Your task to perform on an android device: change the clock display to analog Image 0: 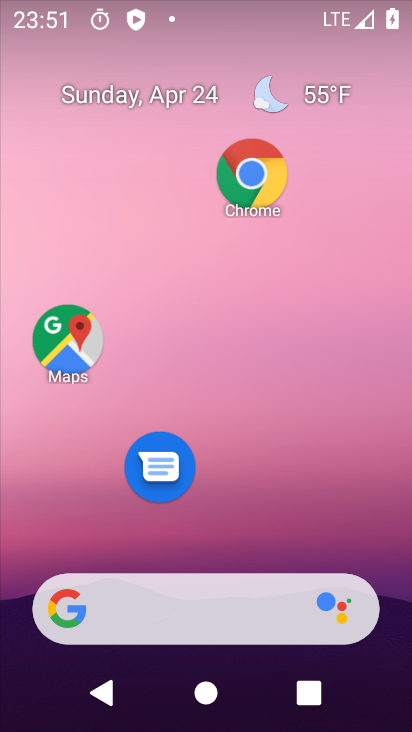
Step 0: drag from (231, 493) to (202, 20)
Your task to perform on an android device: change the clock display to analog Image 1: 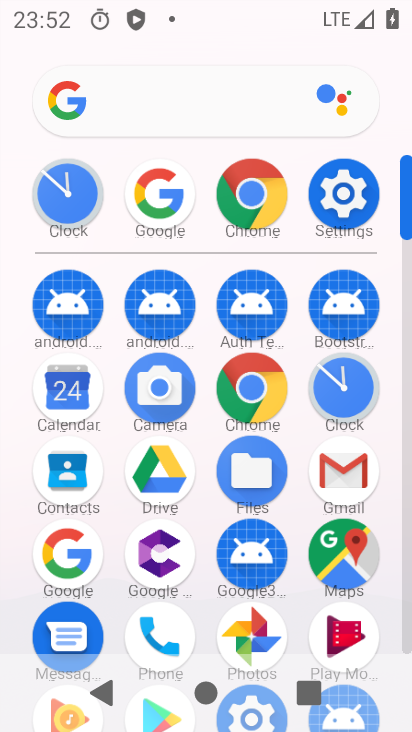
Step 1: click (341, 399)
Your task to perform on an android device: change the clock display to analog Image 2: 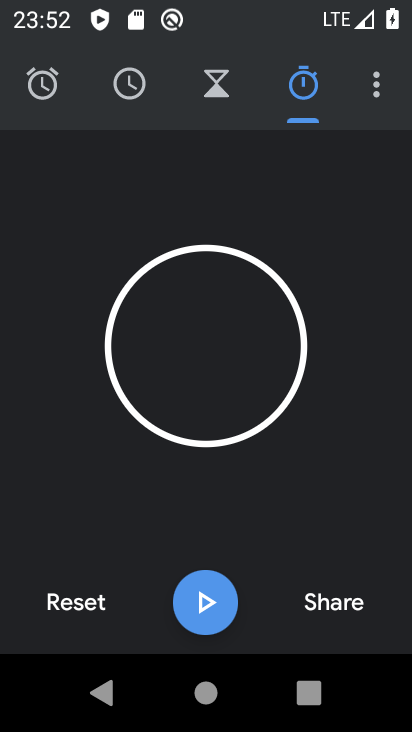
Step 2: click (369, 82)
Your task to perform on an android device: change the clock display to analog Image 3: 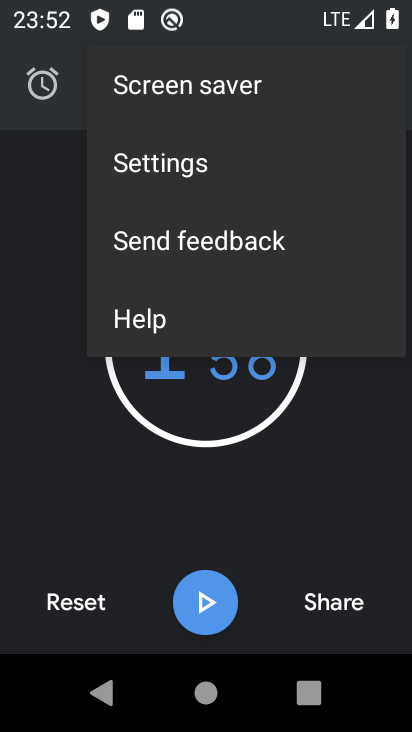
Step 3: click (221, 164)
Your task to perform on an android device: change the clock display to analog Image 4: 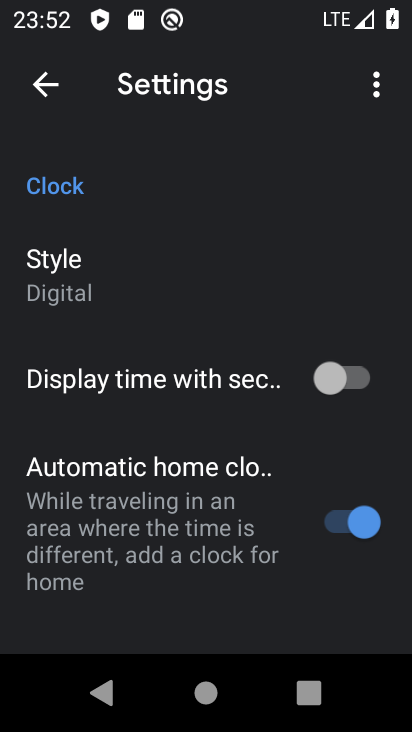
Step 4: click (115, 274)
Your task to perform on an android device: change the clock display to analog Image 5: 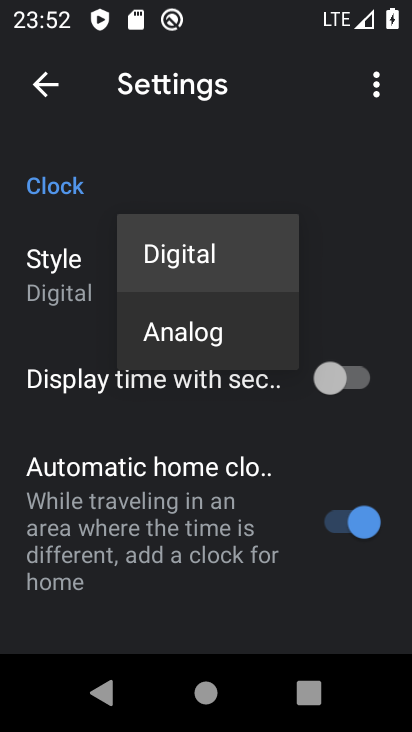
Step 5: click (170, 336)
Your task to perform on an android device: change the clock display to analog Image 6: 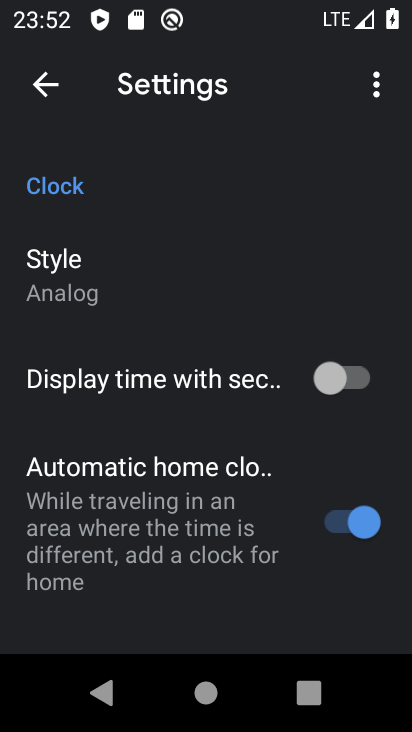
Step 6: task complete